Your task to perform on an android device: turn off priority inbox in the gmail app Image 0: 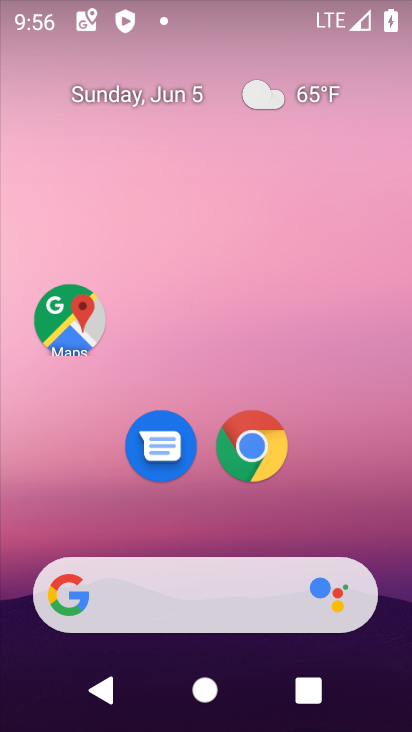
Step 0: click (156, 107)
Your task to perform on an android device: turn off priority inbox in the gmail app Image 1: 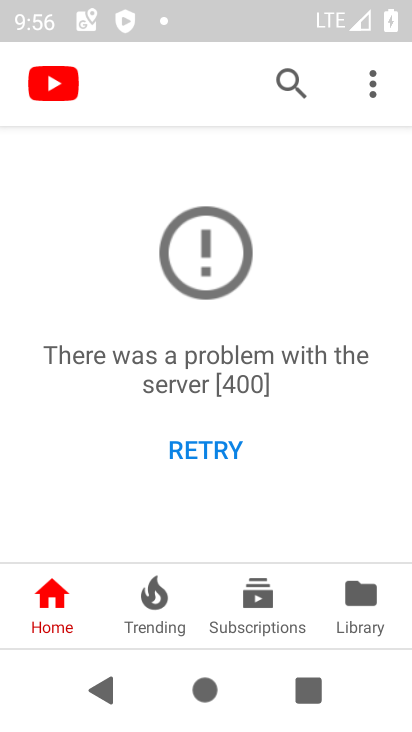
Step 1: press back button
Your task to perform on an android device: turn off priority inbox in the gmail app Image 2: 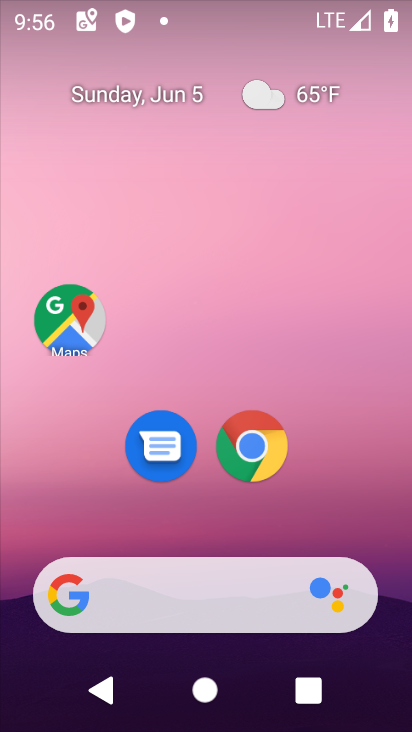
Step 2: drag from (211, 528) to (182, 69)
Your task to perform on an android device: turn off priority inbox in the gmail app Image 3: 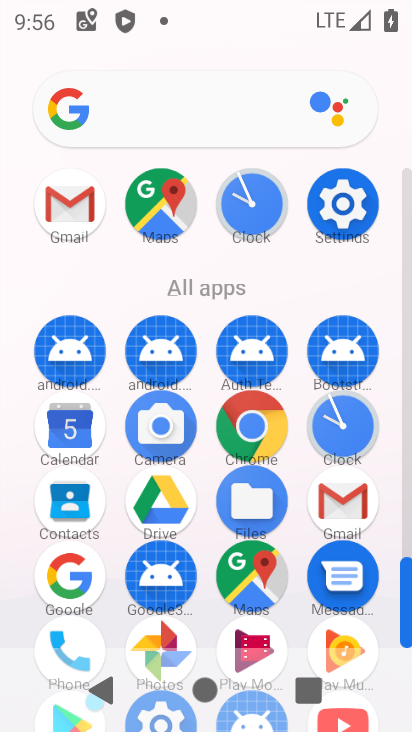
Step 3: click (72, 217)
Your task to perform on an android device: turn off priority inbox in the gmail app Image 4: 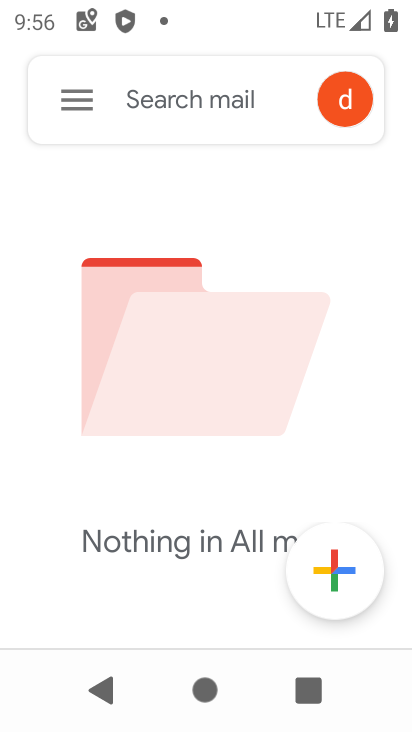
Step 4: click (67, 93)
Your task to perform on an android device: turn off priority inbox in the gmail app Image 5: 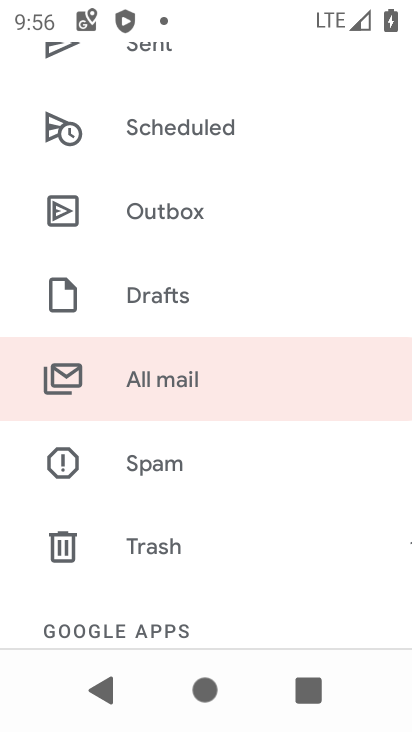
Step 5: drag from (170, 591) to (168, 288)
Your task to perform on an android device: turn off priority inbox in the gmail app Image 6: 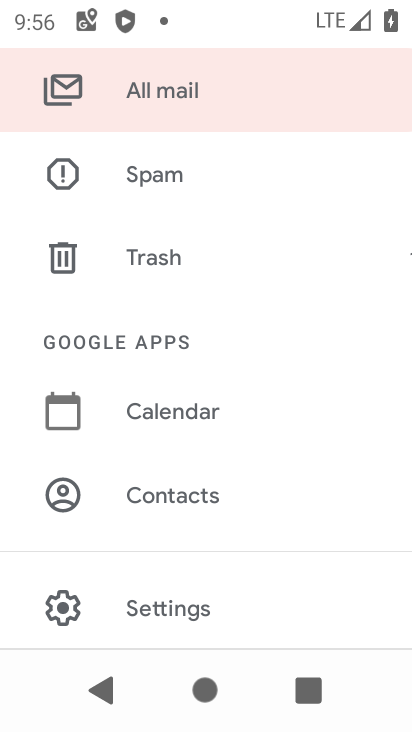
Step 6: click (162, 607)
Your task to perform on an android device: turn off priority inbox in the gmail app Image 7: 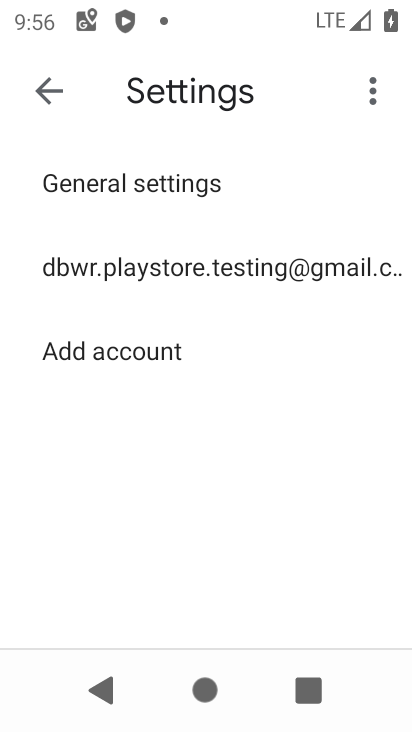
Step 7: click (102, 277)
Your task to perform on an android device: turn off priority inbox in the gmail app Image 8: 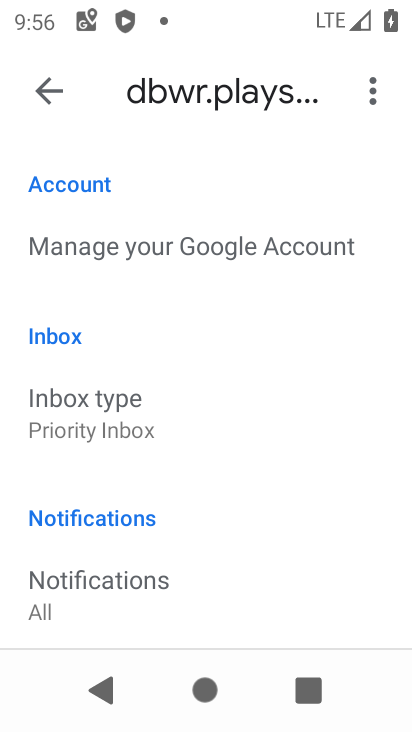
Step 8: click (83, 412)
Your task to perform on an android device: turn off priority inbox in the gmail app Image 9: 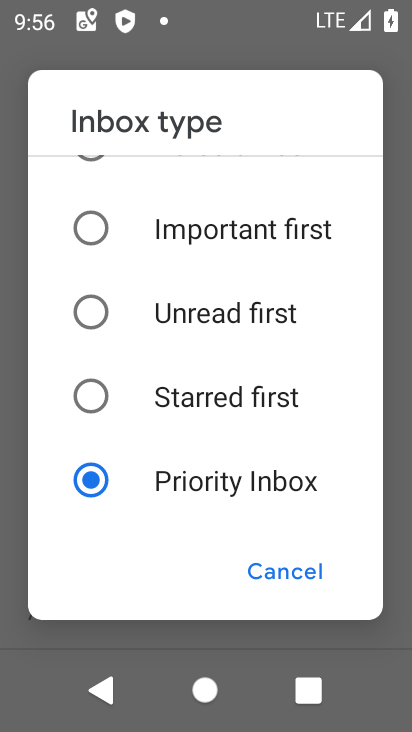
Step 9: click (101, 237)
Your task to perform on an android device: turn off priority inbox in the gmail app Image 10: 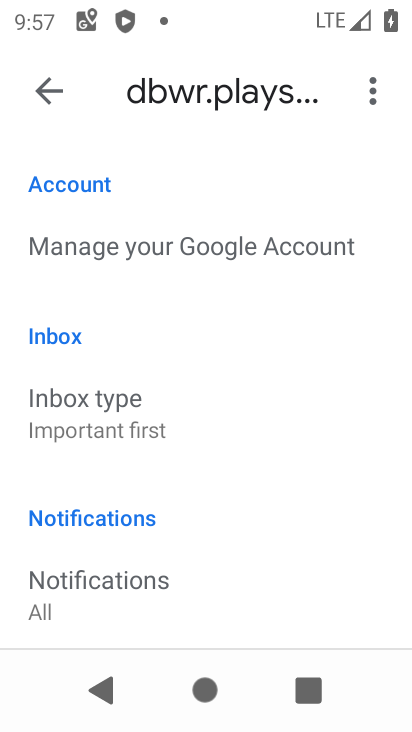
Step 10: task complete